Your task to perform on an android device: change the clock style Image 0: 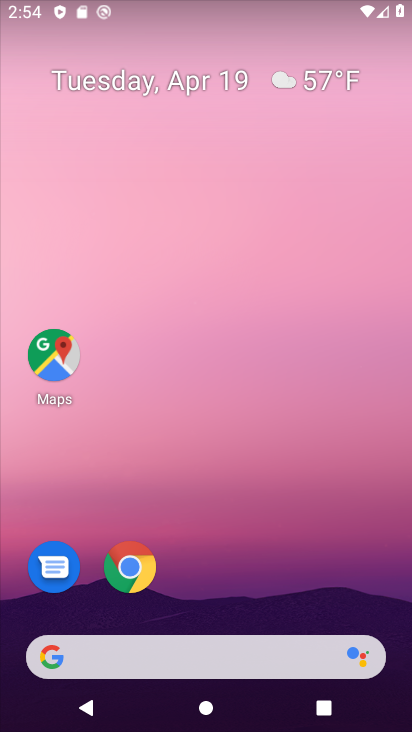
Step 0: drag from (376, 586) to (346, 163)
Your task to perform on an android device: change the clock style Image 1: 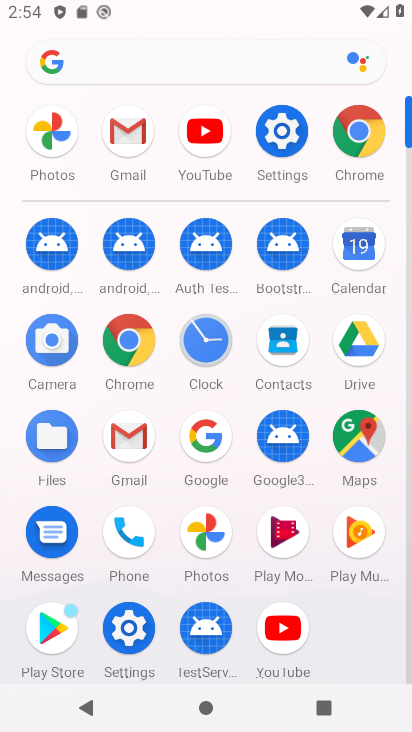
Step 1: click (199, 353)
Your task to perform on an android device: change the clock style Image 2: 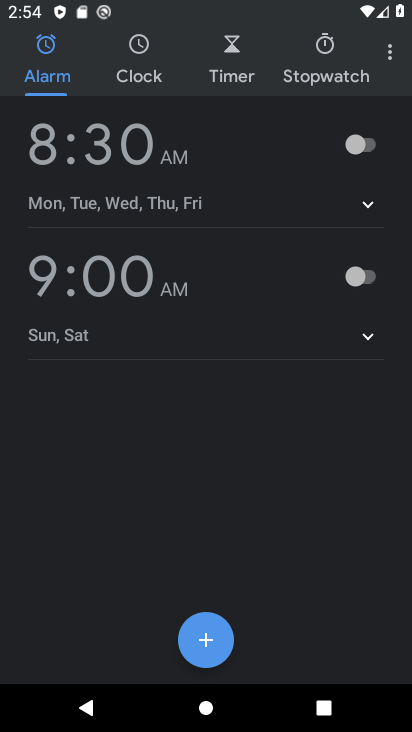
Step 2: click (394, 49)
Your task to perform on an android device: change the clock style Image 3: 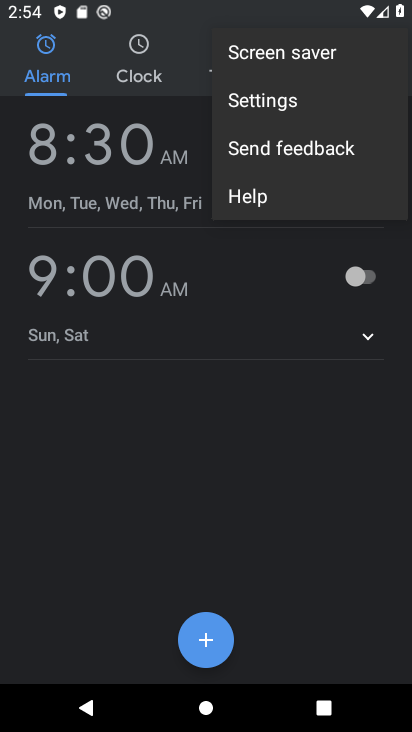
Step 3: click (282, 102)
Your task to perform on an android device: change the clock style Image 4: 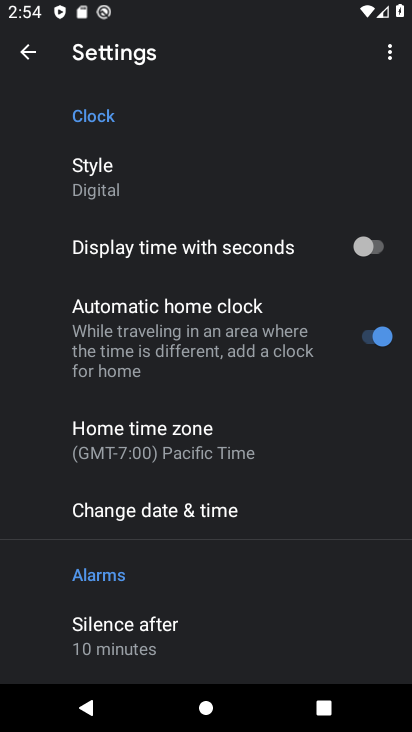
Step 4: drag from (330, 549) to (328, 392)
Your task to perform on an android device: change the clock style Image 5: 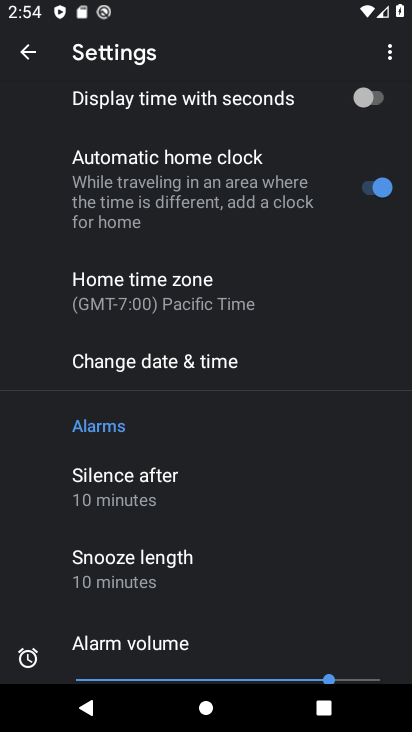
Step 5: drag from (319, 547) to (313, 367)
Your task to perform on an android device: change the clock style Image 6: 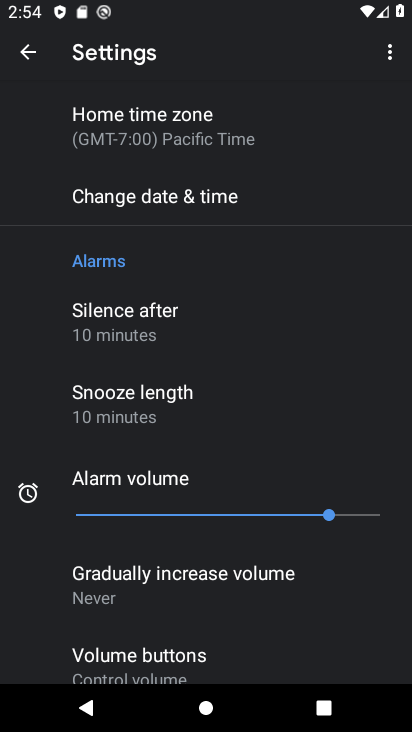
Step 6: drag from (336, 592) to (334, 403)
Your task to perform on an android device: change the clock style Image 7: 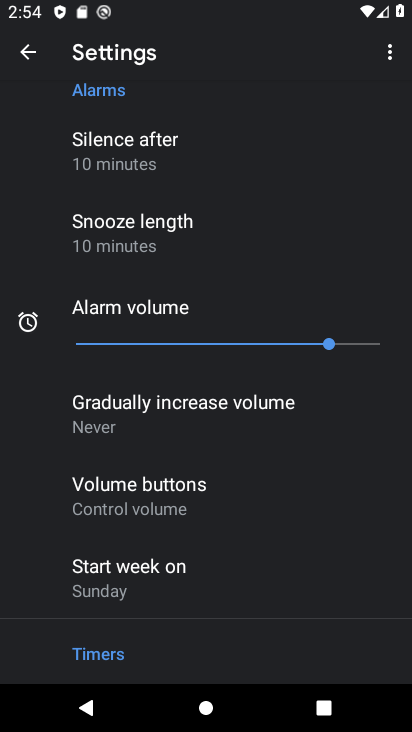
Step 7: drag from (351, 592) to (351, 422)
Your task to perform on an android device: change the clock style Image 8: 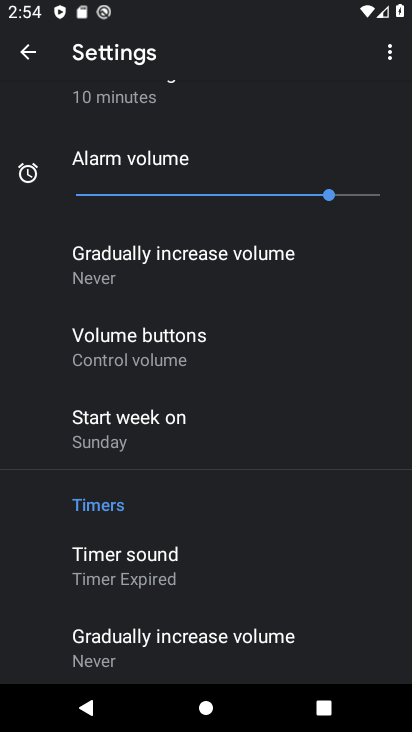
Step 8: drag from (344, 576) to (349, 373)
Your task to perform on an android device: change the clock style Image 9: 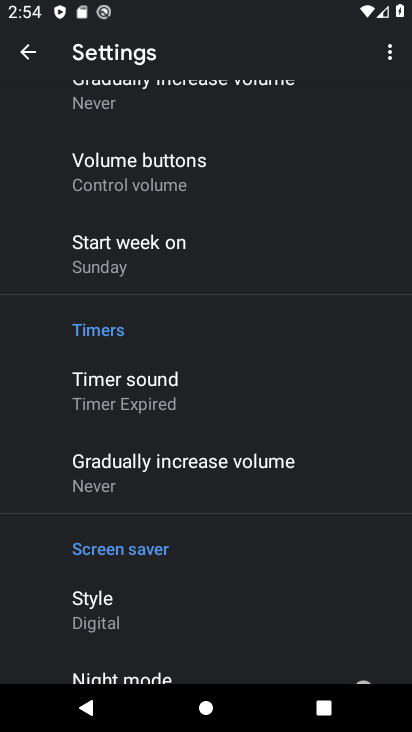
Step 9: drag from (341, 551) to (351, 348)
Your task to perform on an android device: change the clock style Image 10: 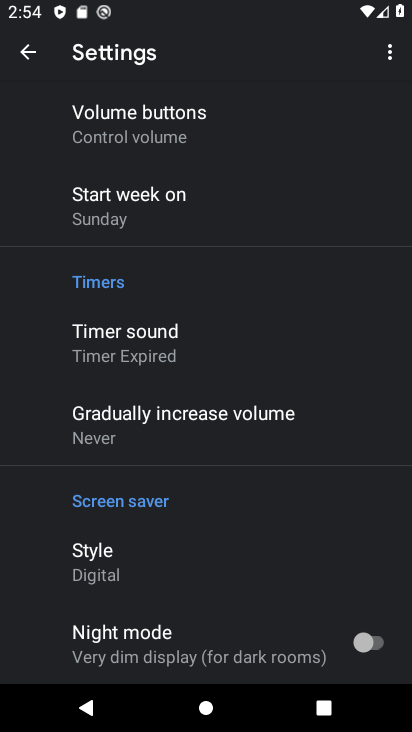
Step 10: drag from (359, 235) to (341, 505)
Your task to perform on an android device: change the clock style Image 11: 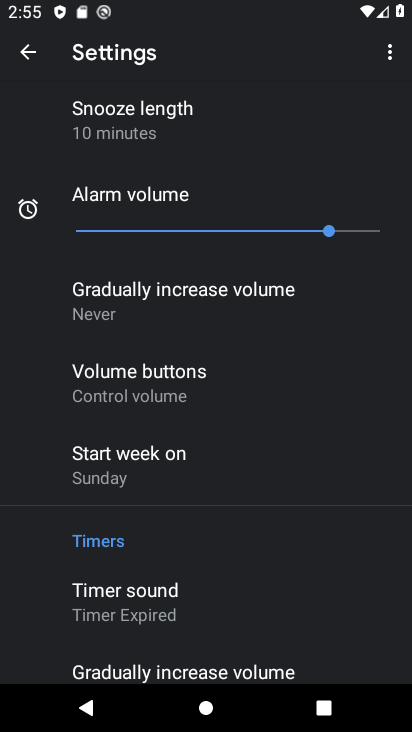
Step 11: drag from (363, 273) to (364, 490)
Your task to perform on an android device: change the clock style Image 12: 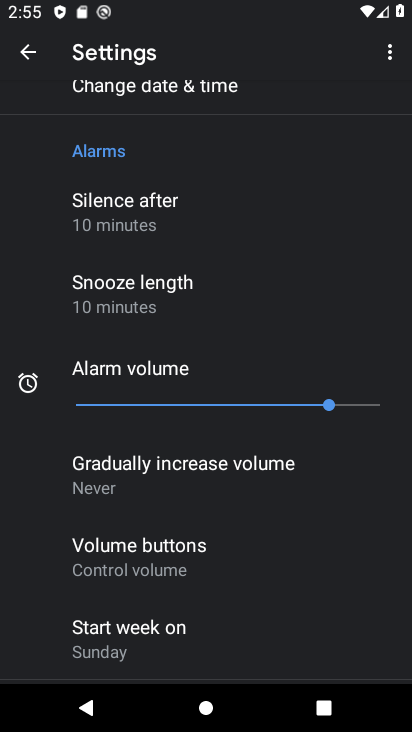
Step 12: drag from (365, 250) to (337, 543)
Your task to perform on an android device: change the clock style Image 13: 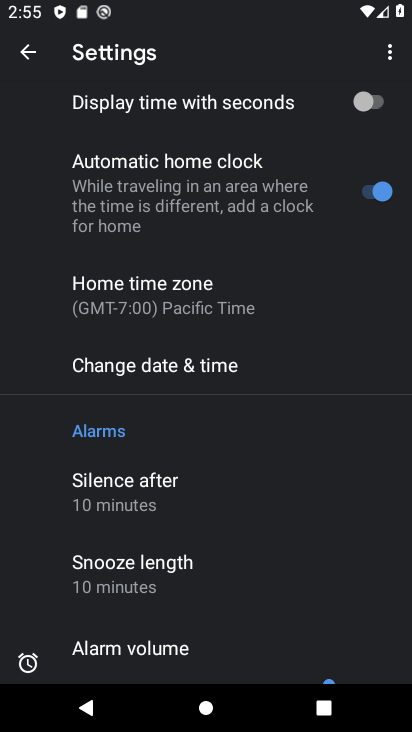
Step 13: drag from (369, 266) to (364, 519)
Your task to perform on an android device: change the clock style Image 14: 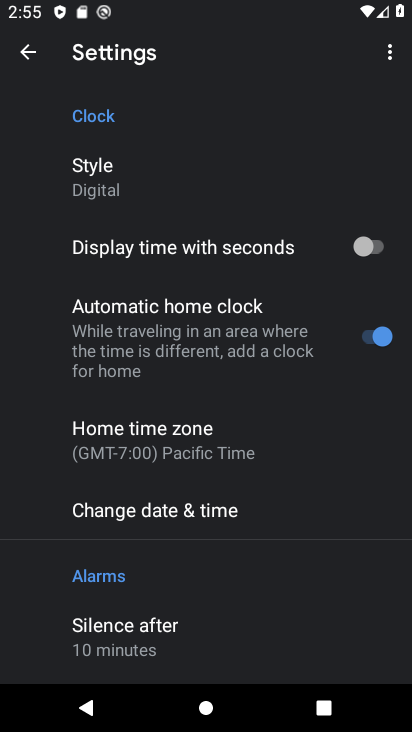
Step 14: click (109, 178)
Your task to perform on an android device: change the clock style Image 15: 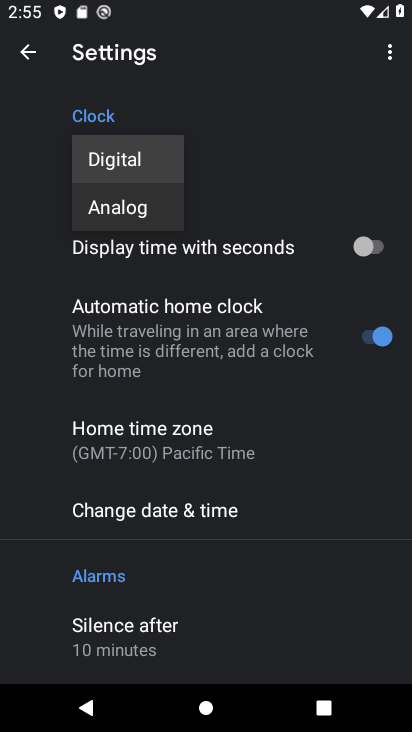
Step 15: click (149, 216)
Your task to perform on an android device: change the clock style Image 16: 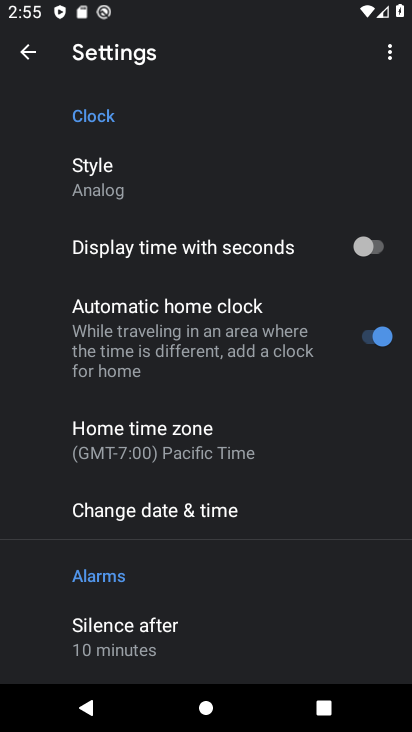
Step 16: task complete